Your task to perform on an android device: change the clock style Image 0: 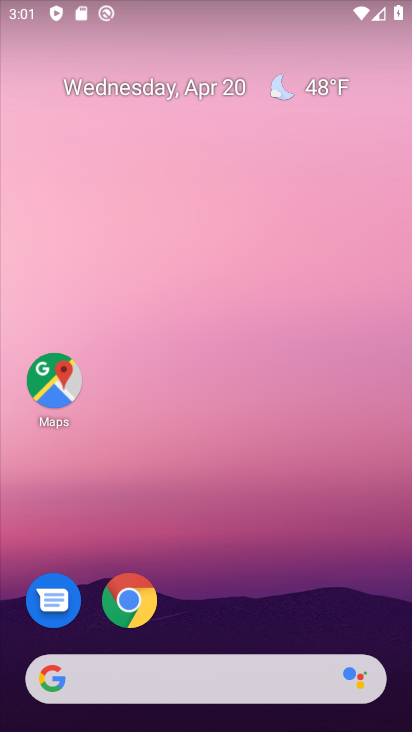
Step 0: drag from (383, 124) to (366, 35)
Your task to perform on an android device: change the clock style Image 1: 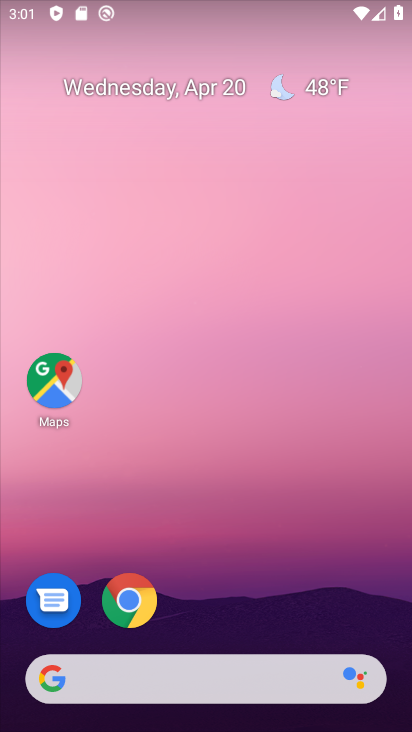
Step 1: drag from (259, 499) to (249, 56)
Your task to perform on an android device: change the clock style Image 2: 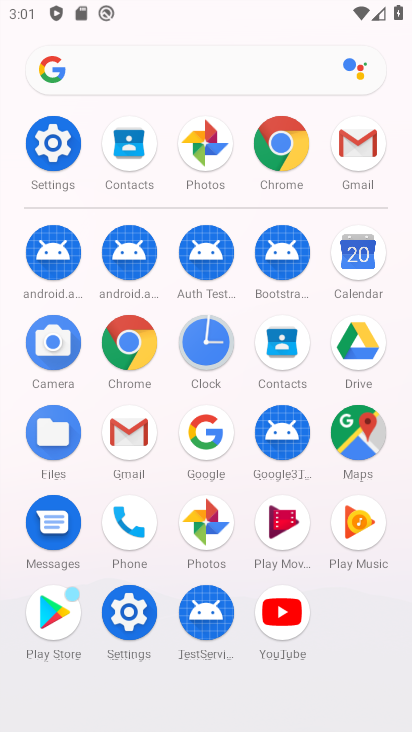
Step 2: click (213, 345)
Your task to perform on an android device: change the clock style Image 3: 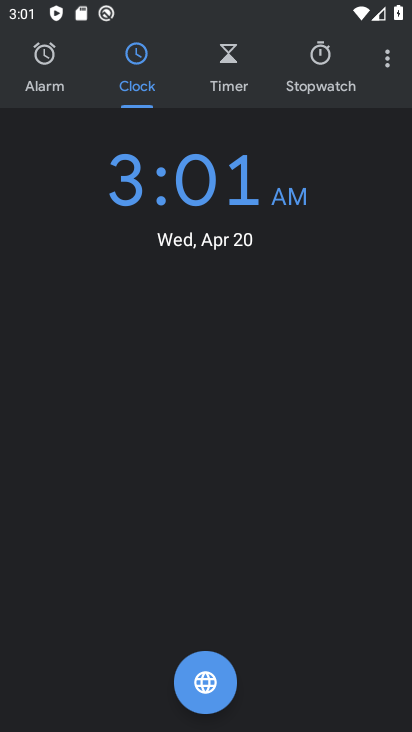
Step 3: click (393, 62)
Your task to perform on an android device: change the clock style Image 4: 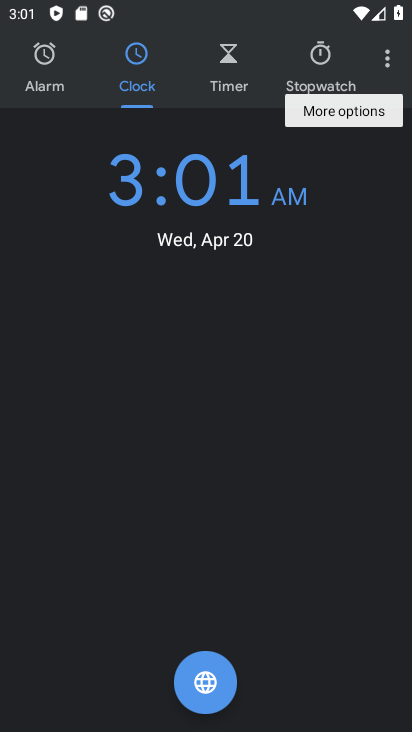
Step 4: click (336, 119)
Your task to perform on an android device: change the clock style Image 5: 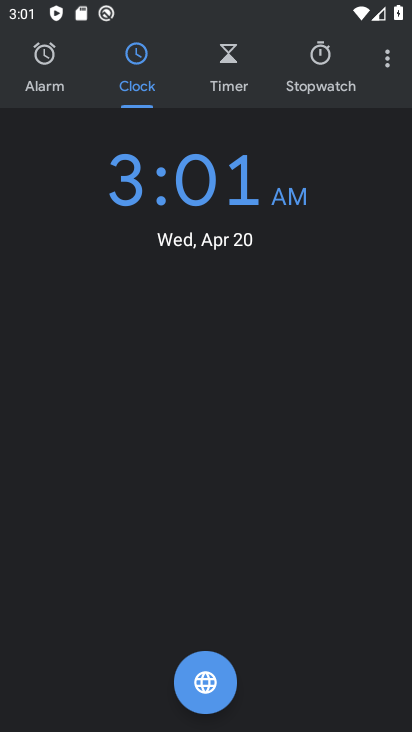
Step 5: click (390, 55)
Your task to perform on an android device: change the clock style Image 6: 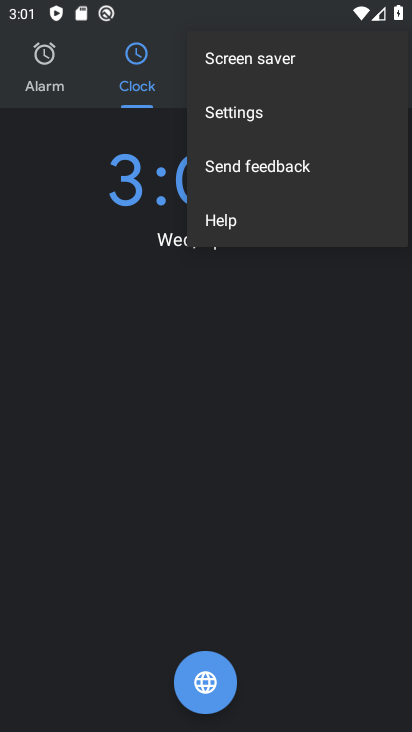
Step 6: click (248, 119)
Your task to perform on an android device: change the clock style Image 7: 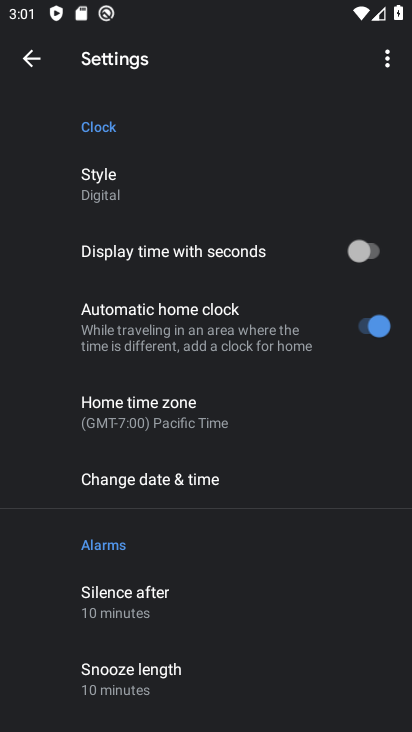
Step 7: click (113, 186)
Your task to perform on an android device: change the clock style Image 8: 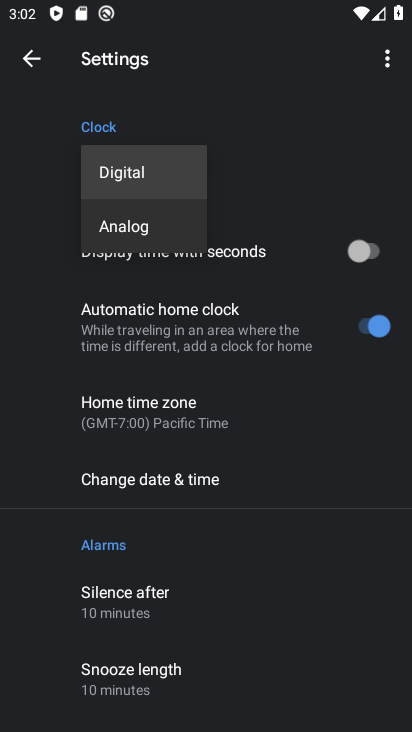
Step 8: click (310, 165)
Your task to perform on an android device: change the clock style Image 9: 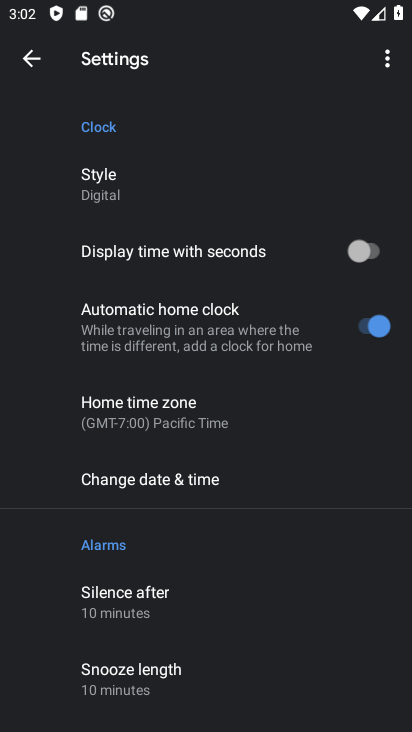
Step 9: click (125, 187)
Your task to perform on an android device: change the clock style Image 10: 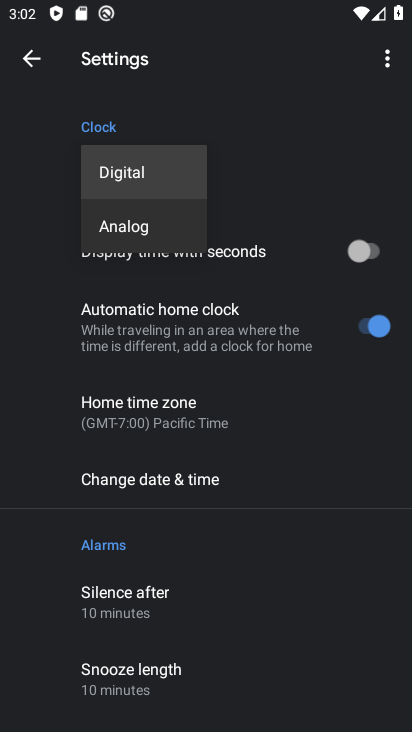
Step 10: click (104, 234)
Your task to perform on an android device: change the clock style Image 11: 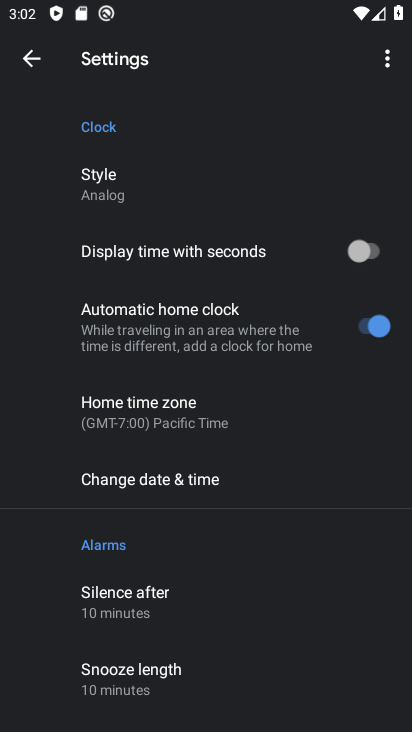
Step 11: task complete